Your task to perform on an android device: Search for the best 4k TVs Image 0: 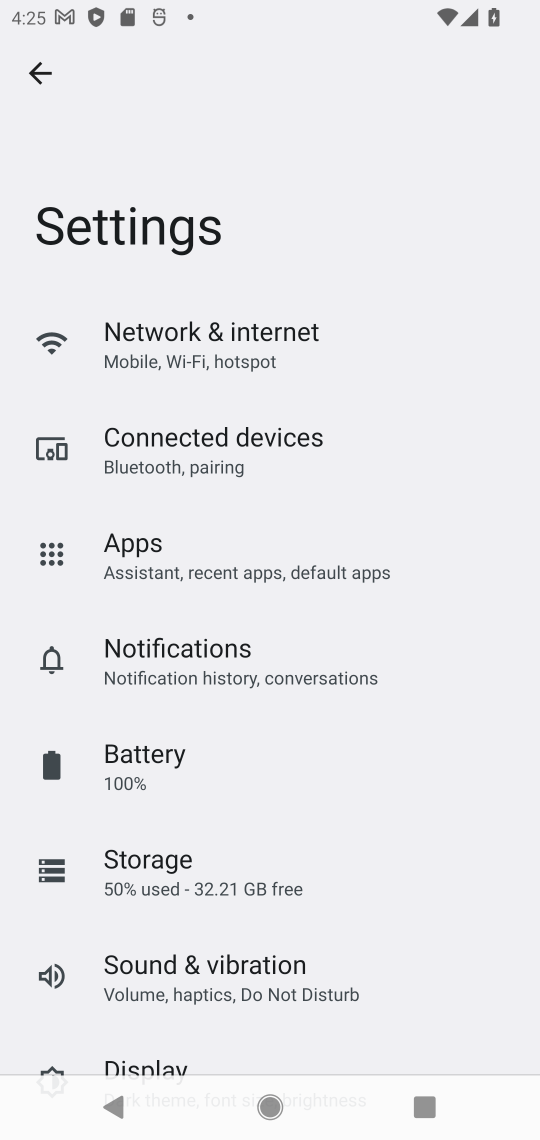
Step 0: press home button
Your task to perform on an android device: Search for the best 4k TVs Image 1: 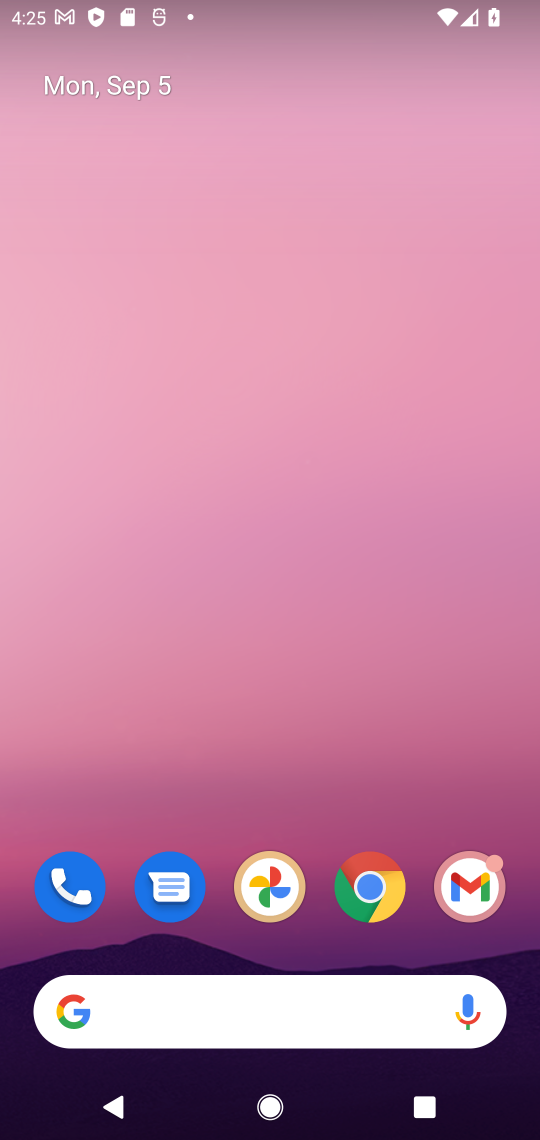
Step 1: drag from (329, 117) to (254, 21)
Your task to perform on an android device: Search for the best 4k TVs Image 2: 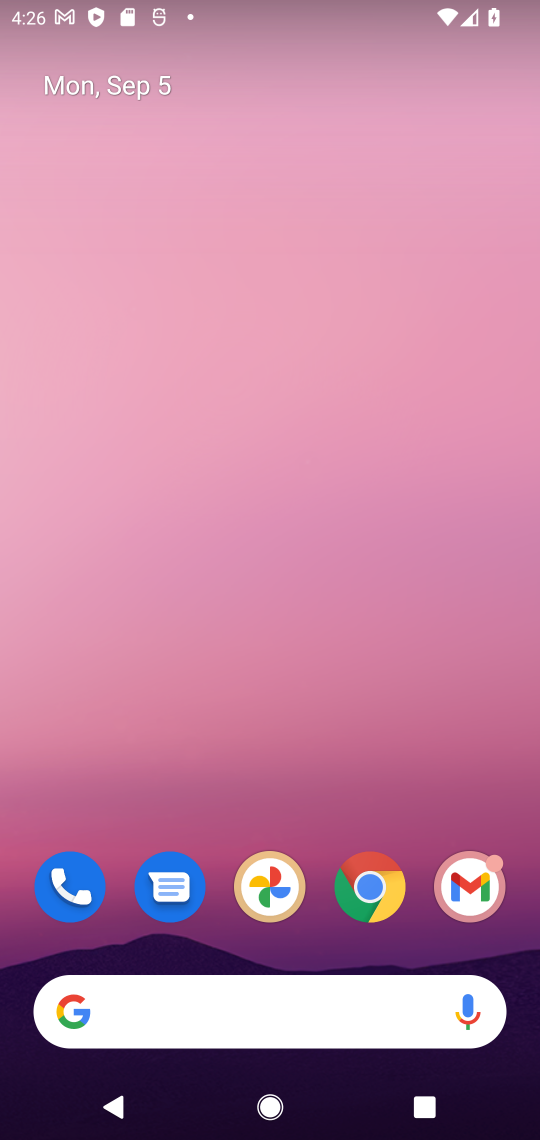
Step 2: drag from (411, 820) to (364, 62)
Your task to perform on an android device: Search for the best 4k TVs Image 3: 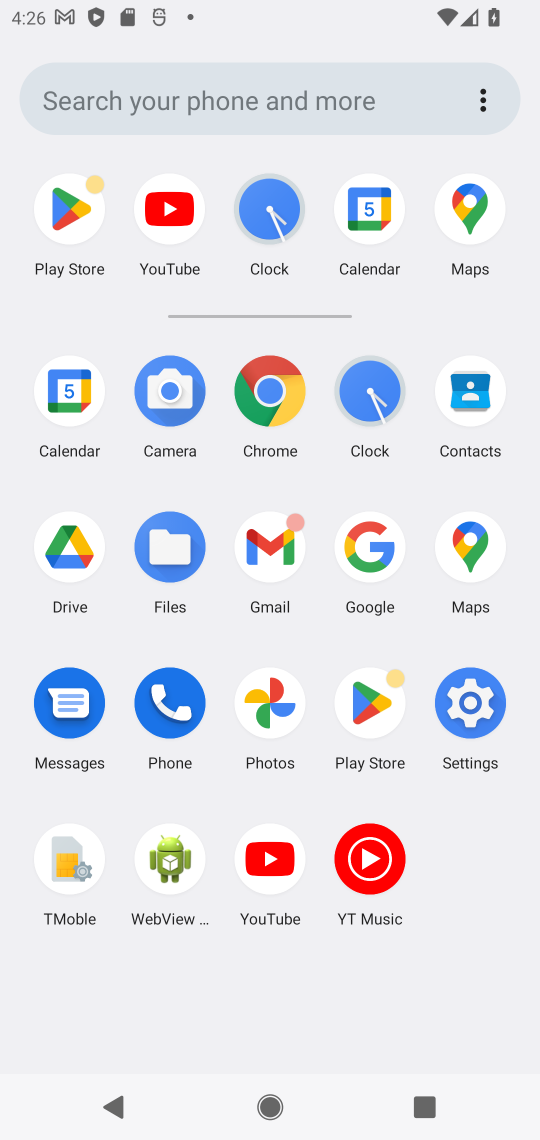
Step 3: click (267, 390)
Your task to perform on an android device: Search for the best 4k TVs Image 4: 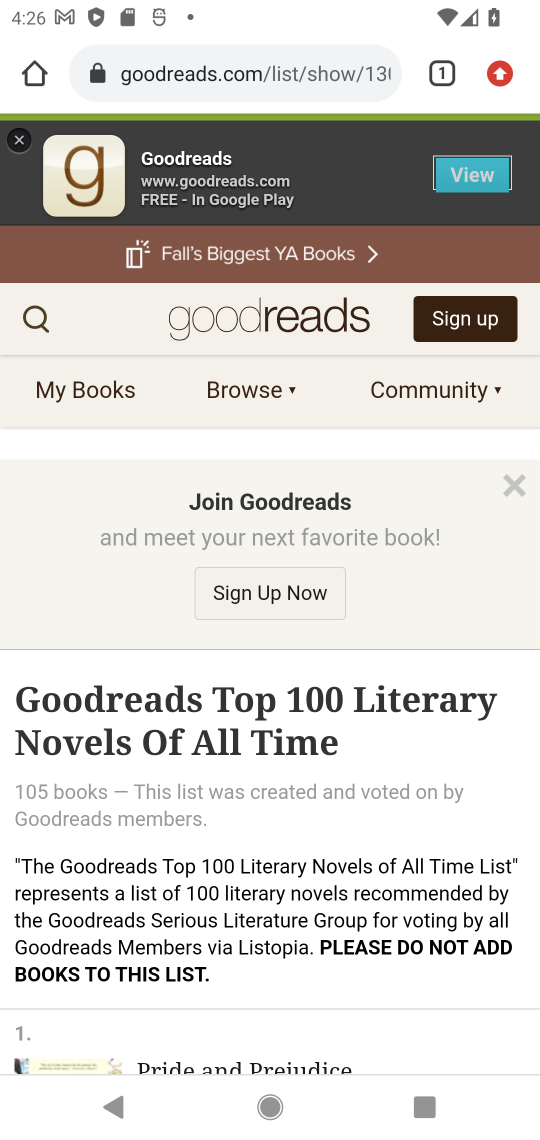
Step 4: click (280, 85)
Your task to perform on an android device: Search for the best 4k TVs Image 5: 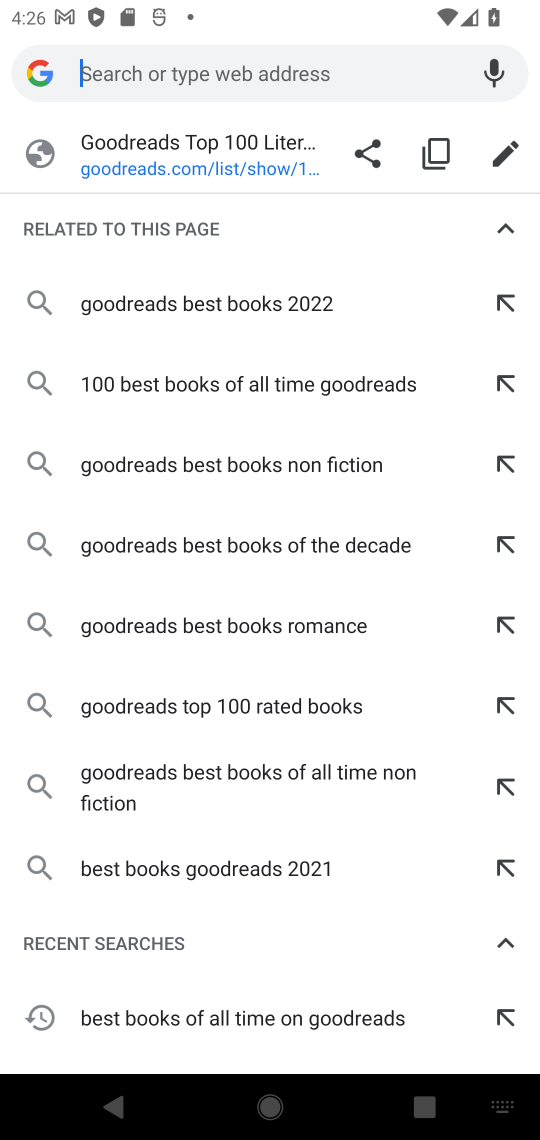
Step 5: type "the best 4k TVs"
Your task to perform on an android device: Search for the best 4k TVs Image 6: 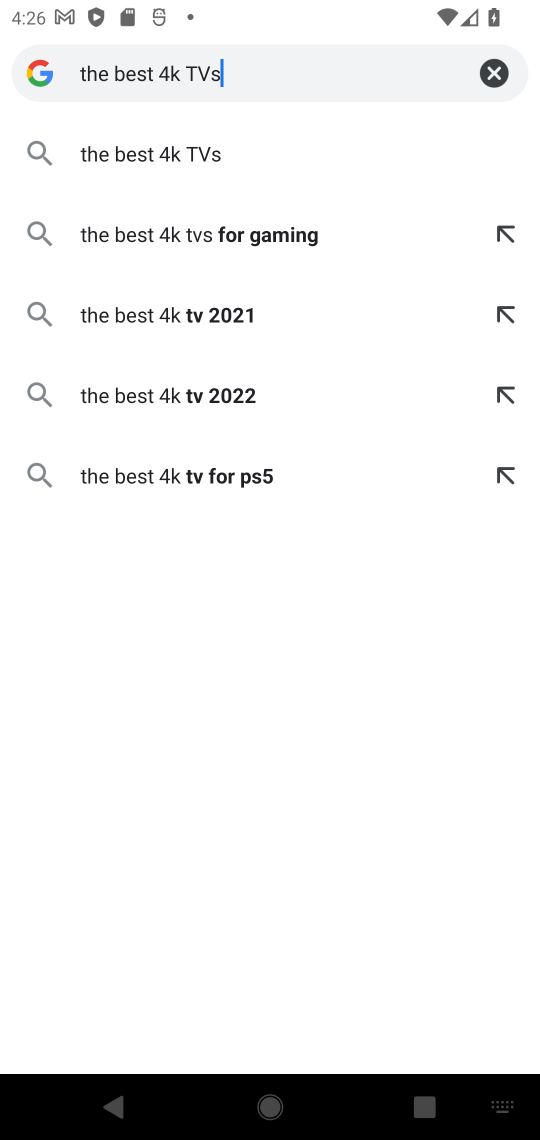
Step 6: press enter
Your task to perform on an android device: Search for the best 4k TVs Image 7: 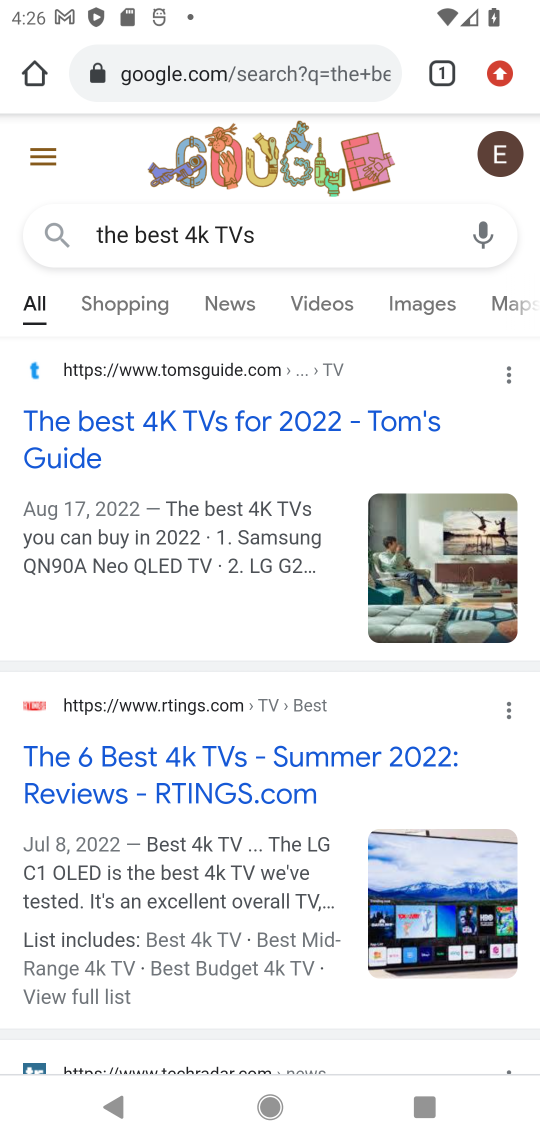
Step 7: click (268, 421)
Your task to perform on an android device: Search for the best 4k TVs Image 8: 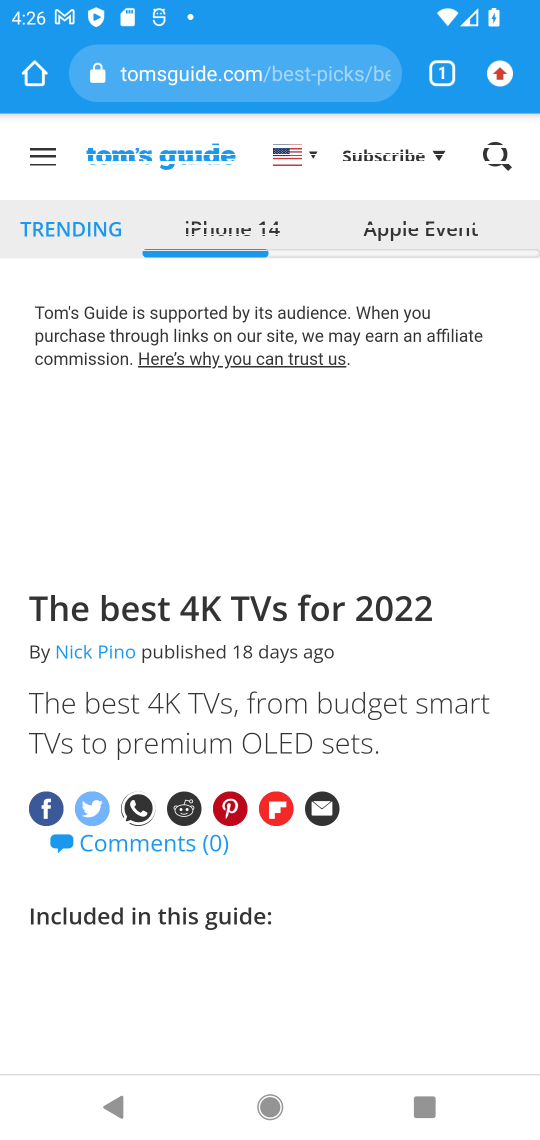
Step 8: click (194, 612)
Your task to perform on an android device: Search for the best 4k TVs Image 9: 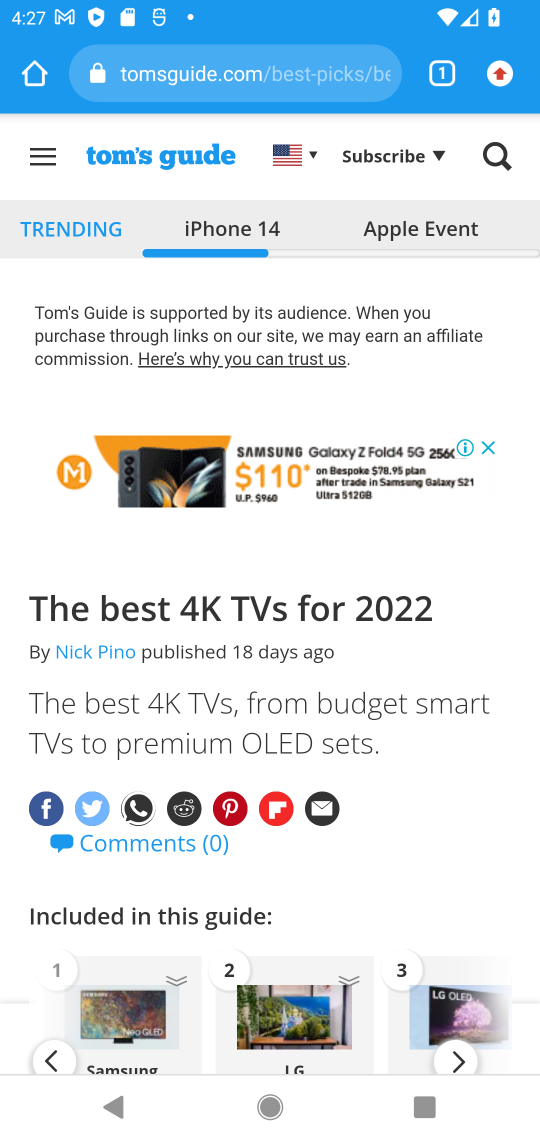
Step 9: click (216, 107)
Your task to perform on an android device: Search for the best 4k TVs Image 10: 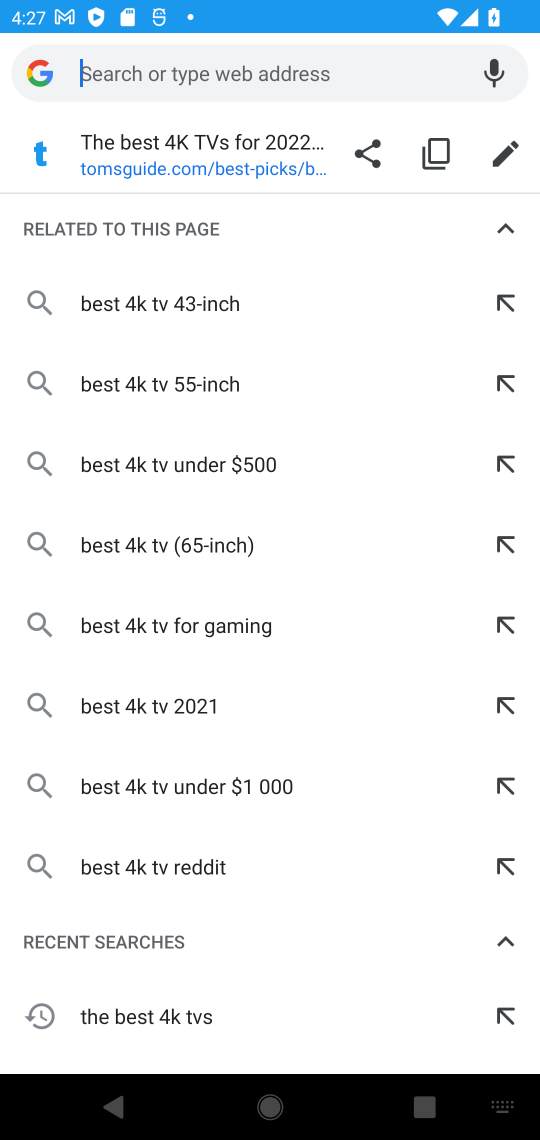
Step 10: task complete